Your task to perform on an android device: Turn off the flashlight Image 0: 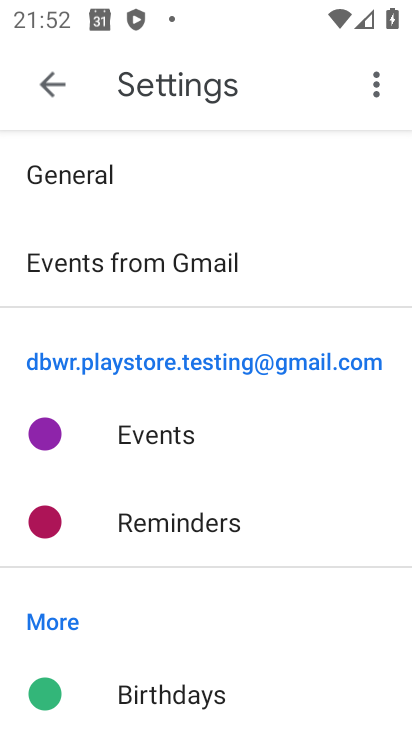
Step 0: press home button
Your task to perform on an android device: Turn off the flashlight Image 1: 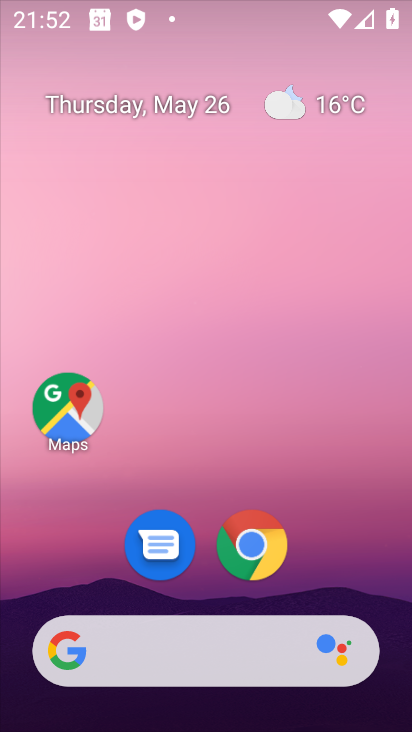
Step 1: drag from (331, 560) to (336, 30)
Your task to perform on an android device: Turn off the flashlight Image 2: 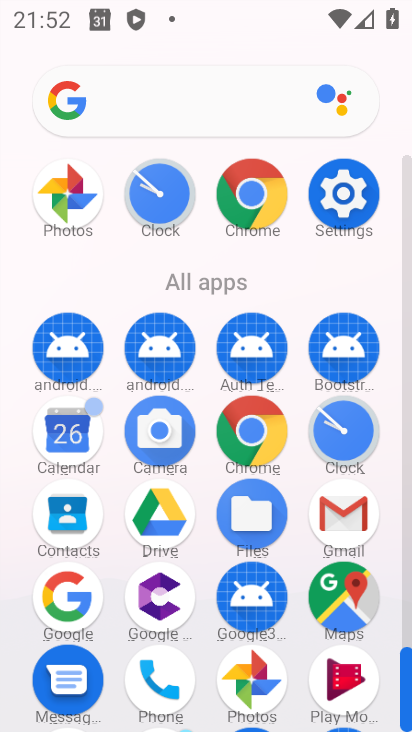
Step 2: click (345, 193)
Your task to perform on an android device: Turn off the flashlight Image 3: 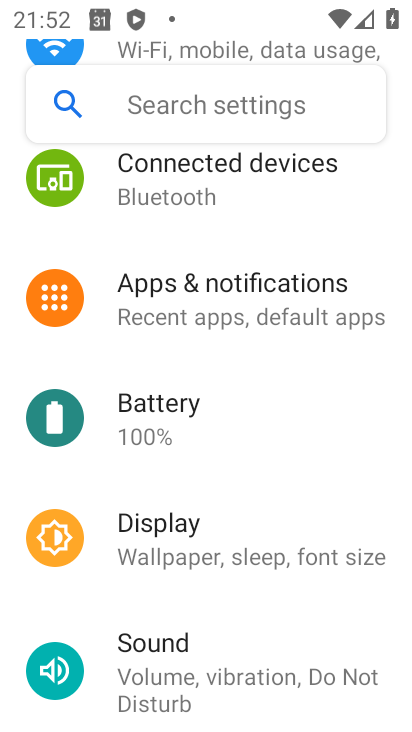
Step 3: click (239, 98)
Your task to perform on an android device: Turn off the flashlight Image 4: 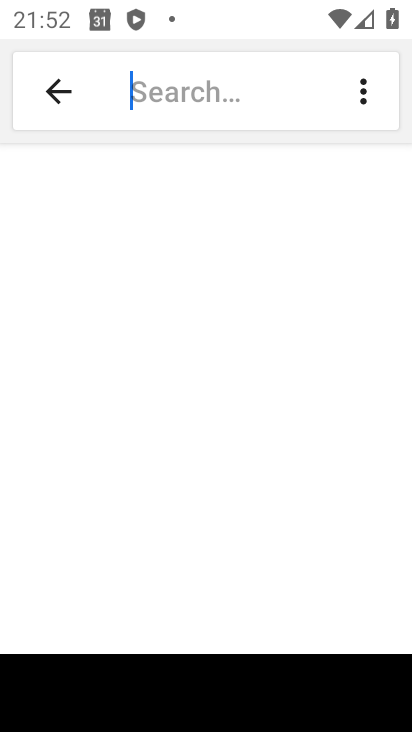
Step 4: type "flash"
Your task to perform on an android device: Turn off the flashlight Image 5: 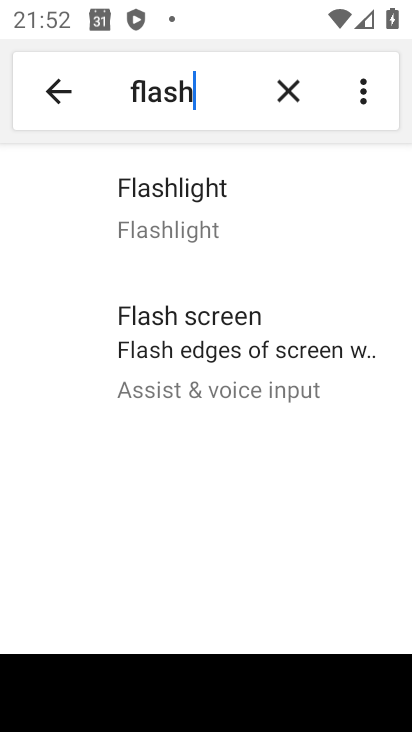
Step 5: task complete